Your task to perform on an android device: visit the assistant section in the google photos Image 0: 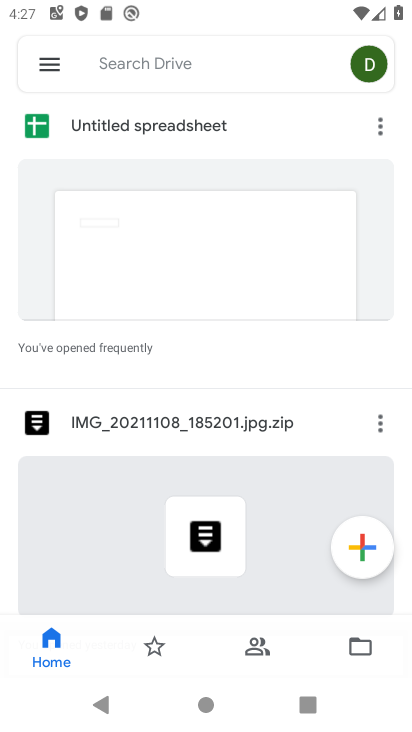
Step 0: press back button
Your task to perform on an android device: visit the assistant section in the google photos Image 1: 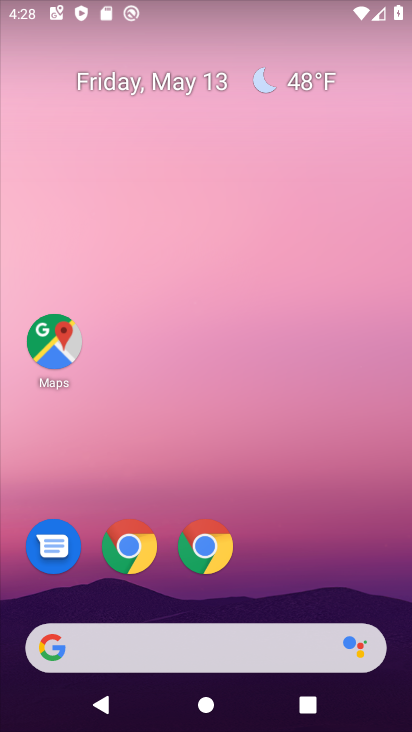
Step 1: drag from (319, 582) to (152, 1)
Your task to perform on an android device: visit the assistant section in the google photos Image 2: 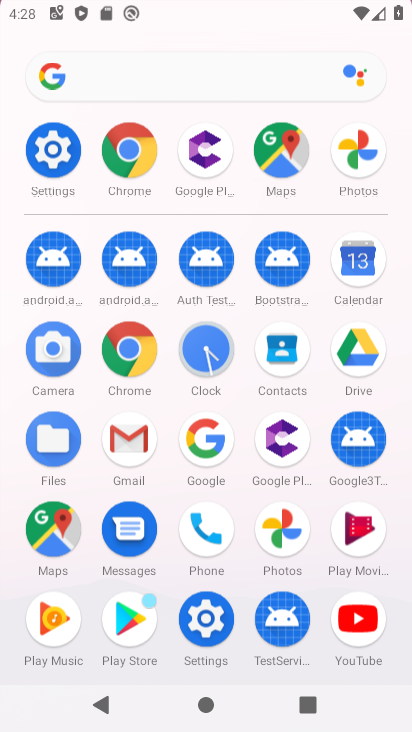
Step 2: drag from (265, 567) to (86, 19)
Your task to perform on an android device: visit the assistant section in the google photos Image 3: 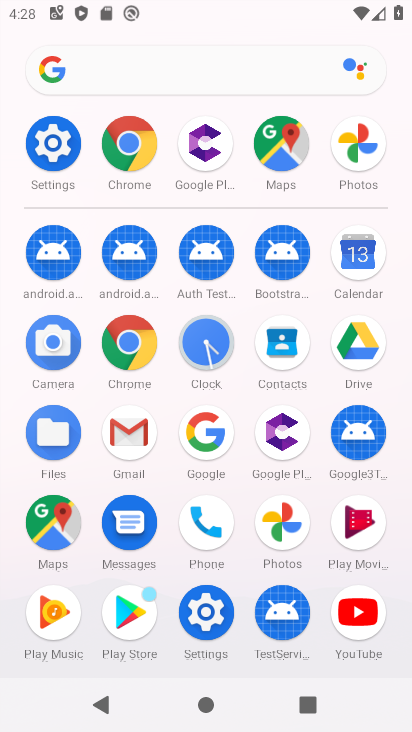
Step 3: click (281, 528)
Your task to perform on an android device: visit the assistant section in the google photos Image 4: 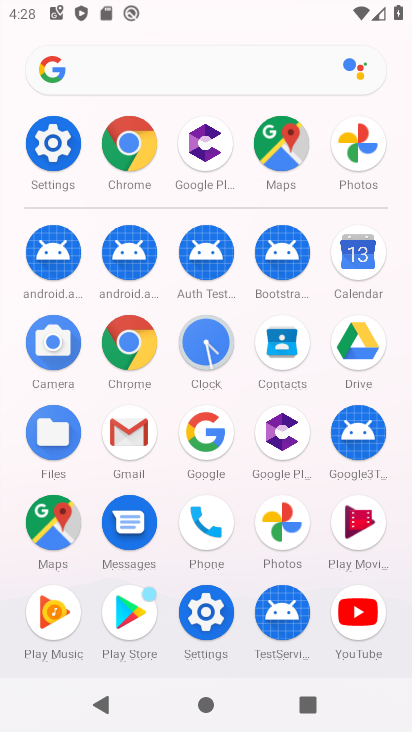
Step 4: click (281, 525)
Your task to perform on an android device: visit the assistant section in the google photos Image 5: 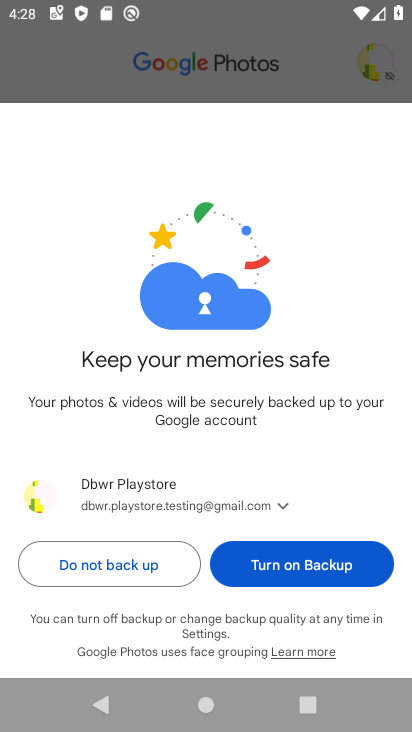
Step 5: click (123, 561)
Your task to perform on an android device: visit the assistant section in the google photos Image 6: 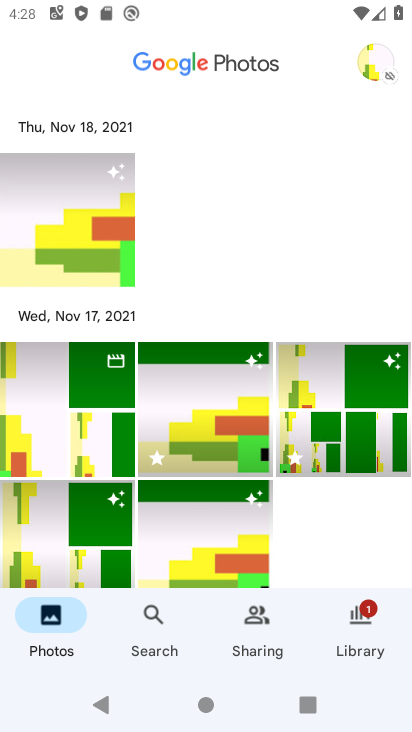
Step 6: task complete